Your task to perform on an android device: turn on notifications settings in the gmail app Image 0: 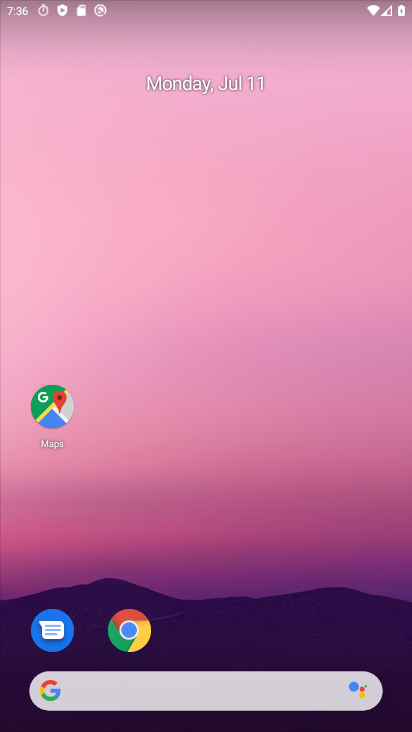
Step 0: drag from (172, 685) to (313, 30)
Your task to perform on an android device: turn on notifications settings in the gmail app Image 1: 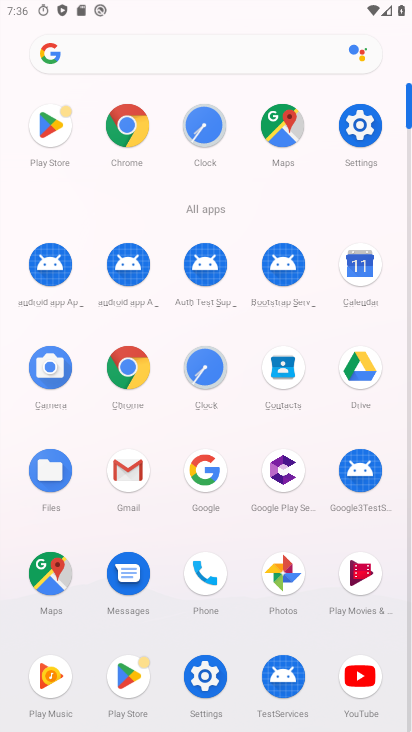
Step 1: click (135, 475)
Your task to perform on an android device: turn on notifications settings in the gmail app Image 2: 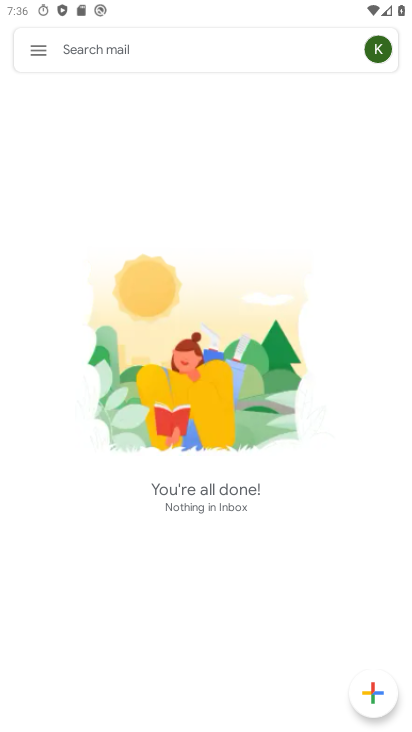
Step 2: click (43, 49)
Your task to perform on an android device: turn on notifications settings in the gmail app Image 3: 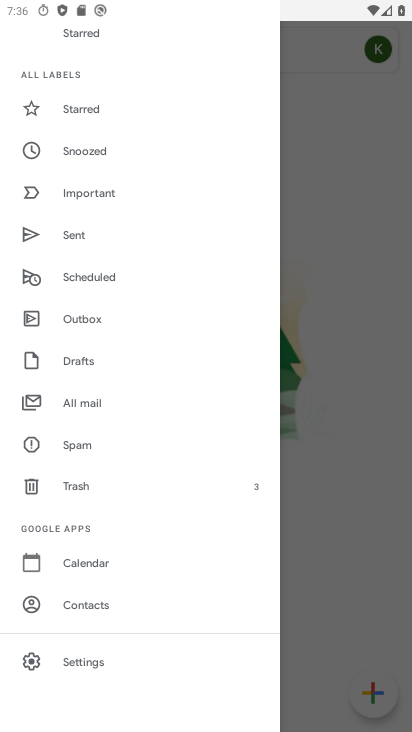
Step 3: drag from (109, 623) to (170, 88)
Your task to perform on an android device: turn on notifications settings in the gmail app Image 4: 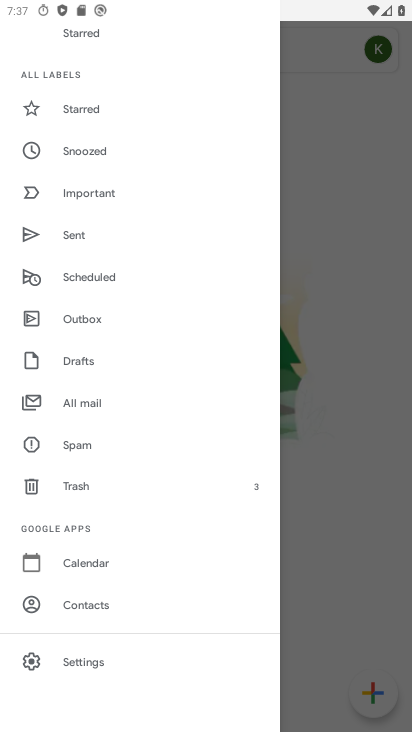
Step 4: click (92, 664)
Your task to perform on an android device: turn on notifications settings in the gmail app Image 5: 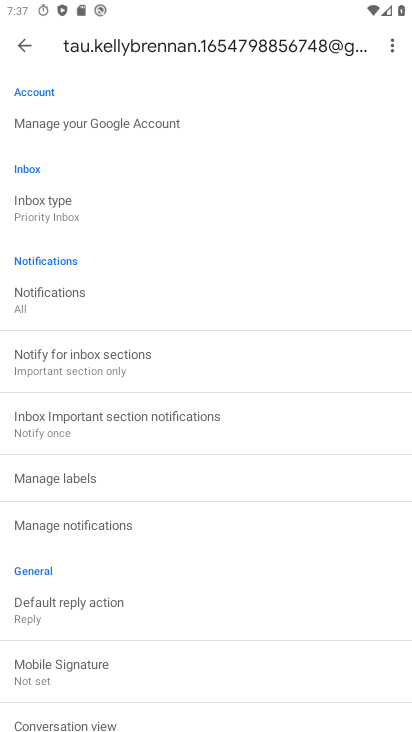
Step 5: click (45, 300)
Your task to perform on an android device: turn on notifications settings in the gmail app Image 6: 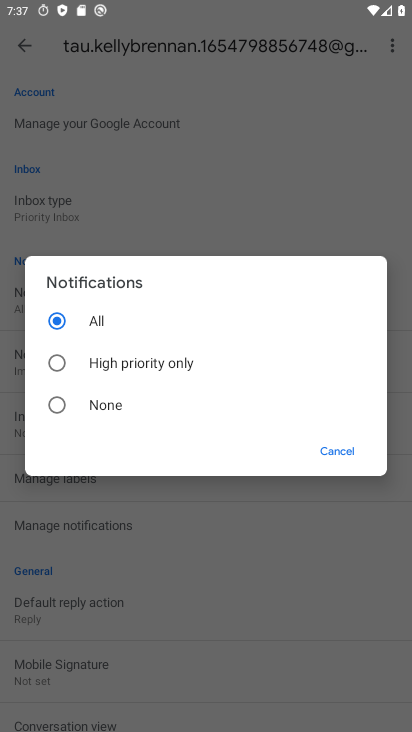
Step 6: task complete